Your task to perform on an android device: install app "Skype" Image 0: 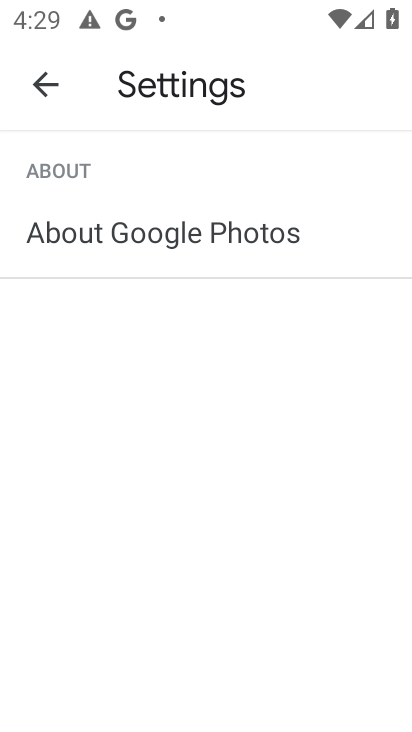
Step 0: click (39, 83)
Your task to perform on an android device: install app "Skype" Image 1: 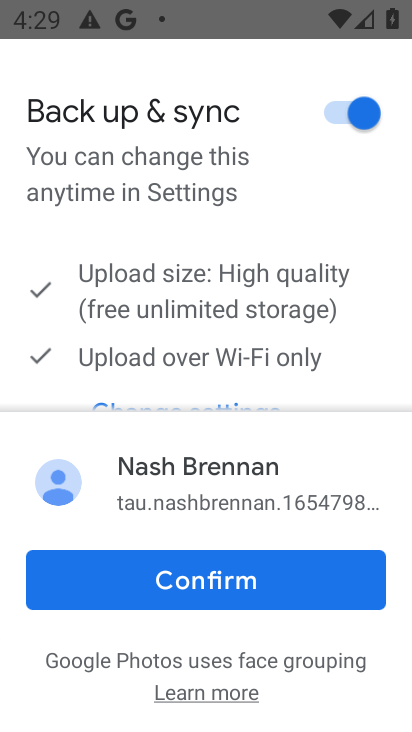
Step 1: click (215, 586)
Your task to perform on an android device: install app "Skype" Image 2: 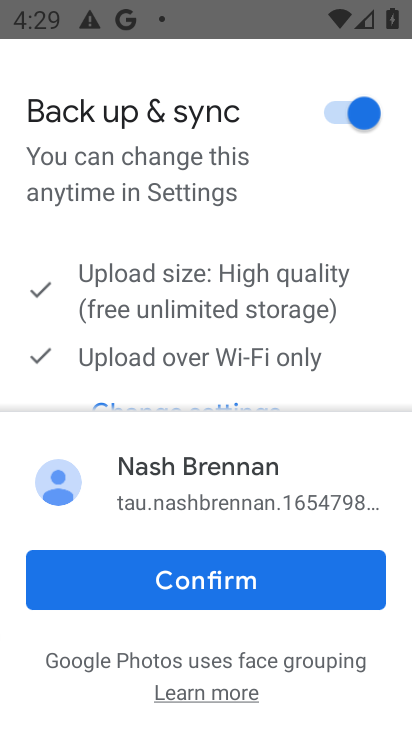
Step 2: click (215, 586)
Your task to perform on an android device: install app "Skype" Image 3: 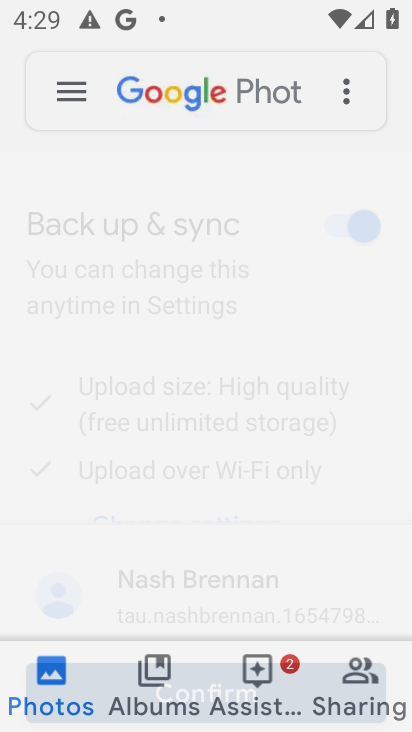
Step 3: click (215, 584)
Your task to perform on an android device: install app "Skype" Image 4: 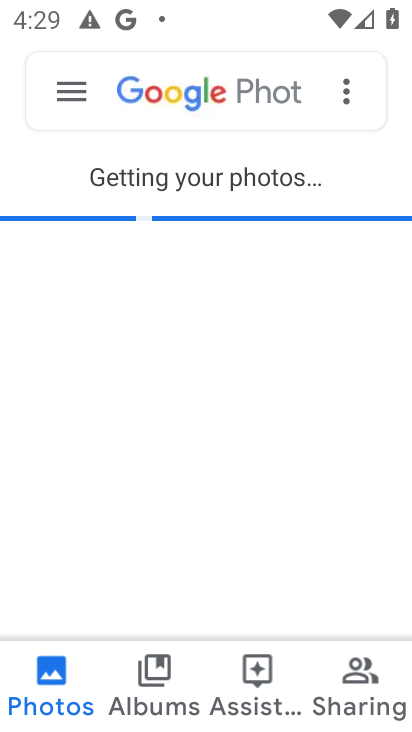
Step 4: click (217, 582)
Your task to perform on an android device: install app "Skype" Image 5: 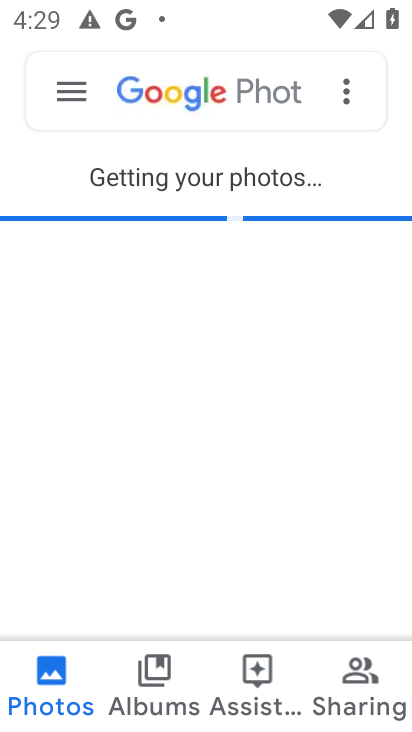
Step 5: click (219, 584)
Your task to perform on an android device: install app "Skype" Image 6: 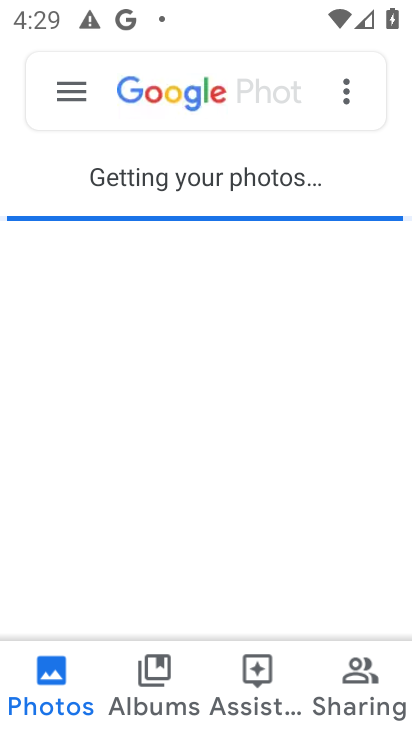
Step 6: press back button
Your task to perform on an android device: install app "Skype" Image 7: 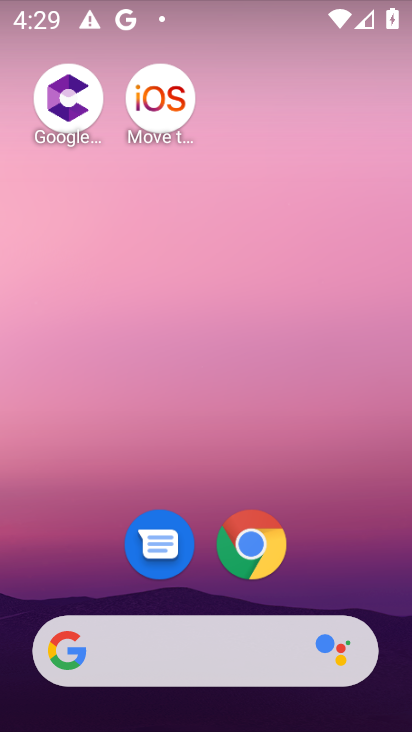
Step 7: drag from (227, 371) to (203, 108)
Your task to perform on an android device: install app "Skype" Image 8: 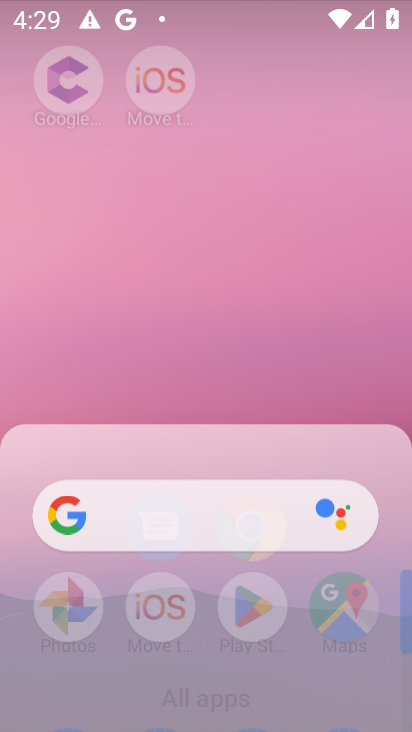
Step 8: drag from (266, 450) to (211, 130)
Your task to perform on an android device: install app "Skype" Image 9: 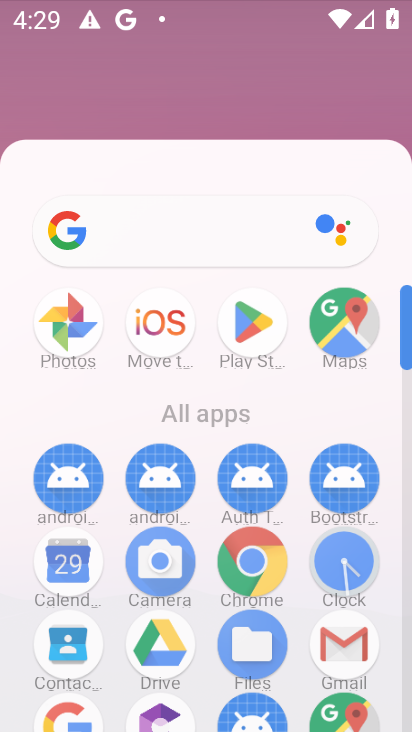
Step 9: drag from (294, 431) to (145, 161)
Your task to perform on an android device: install app "Skype" Image 10: 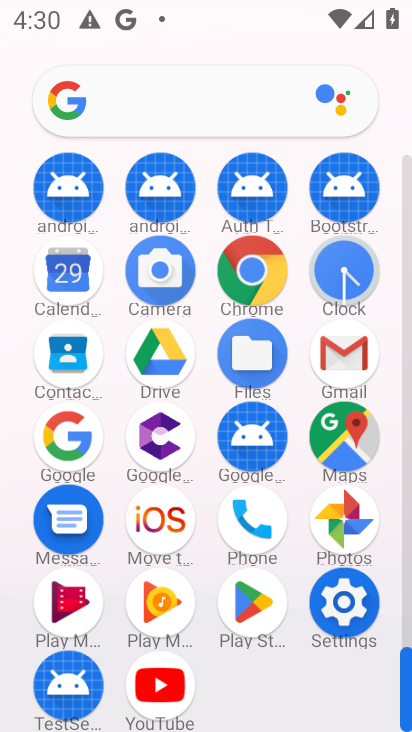
Step 10: click (251, 584)
Your task to perform on an android device: install app "Skype" Image 11: 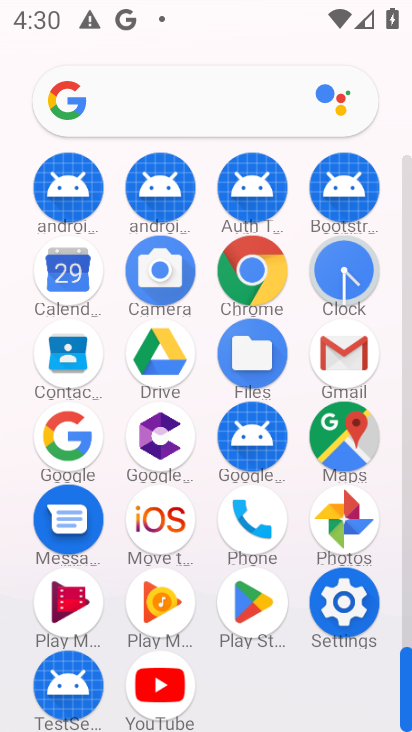
Step 11: click (250, 589)
Your task to perform on an android device: install app "Skype" Image 12: 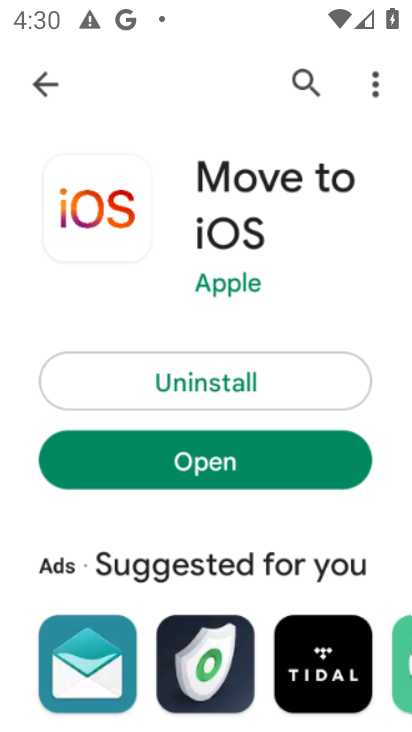
Step 12: click (250, 591)
Your task to perform on an android device: install app "Skype" Image 13: 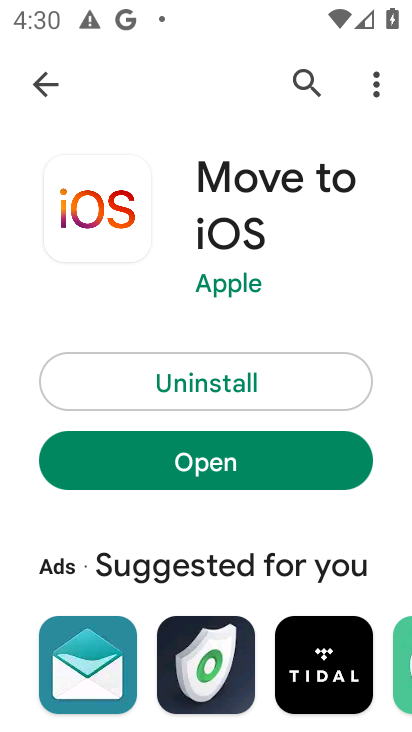
Step 13: click (250, 591)
Your task to perform on an android device: install app "Skype" Image 14: 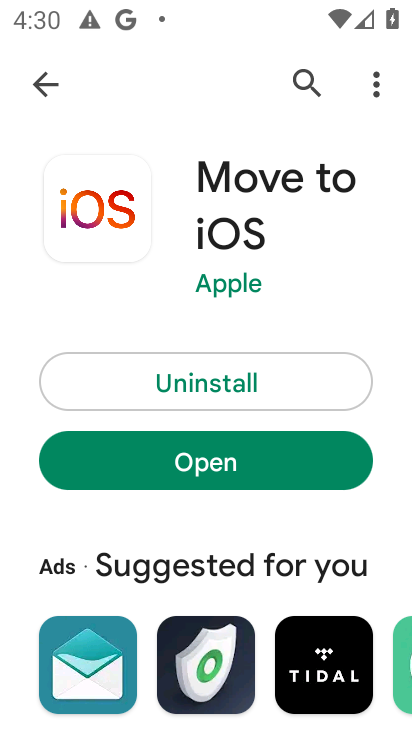
Step 14: click (49, 81)
Your task to perform on an android device: install app "Skype" Image 15: 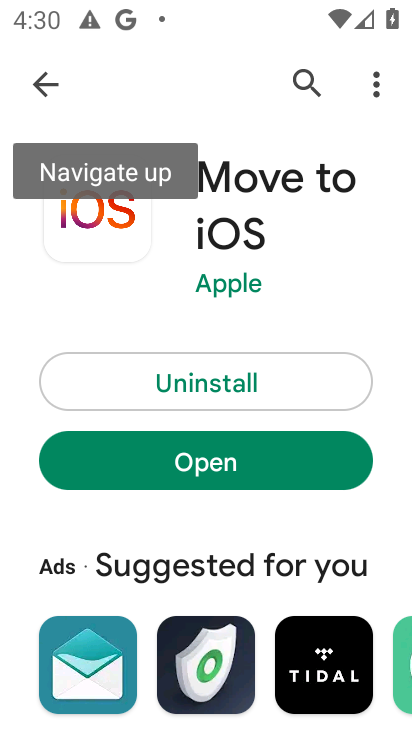
Step 15: click (48, 81)
Your task to perform on an android device: install app "Skype" Image 16: 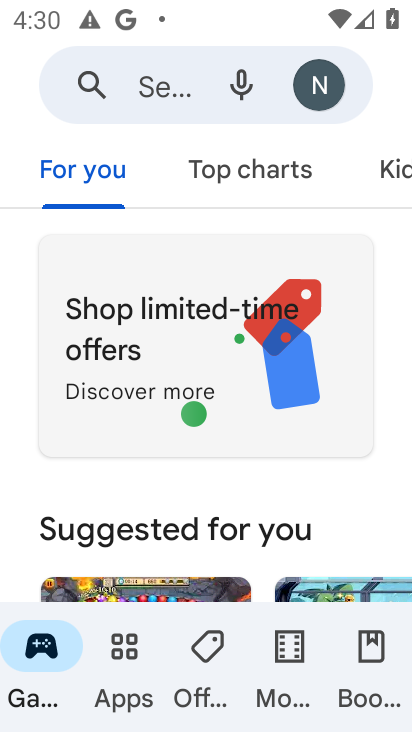
Step 16: click (126, 99)
Your task to perform on an android device: install app "Skype" Image 17: 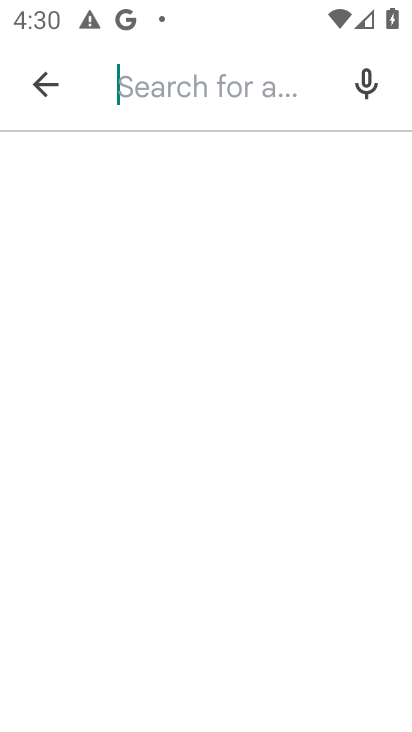
Step 17: click (141, 92)
Your task to perform on an android device: install app "Skype" Image 18: 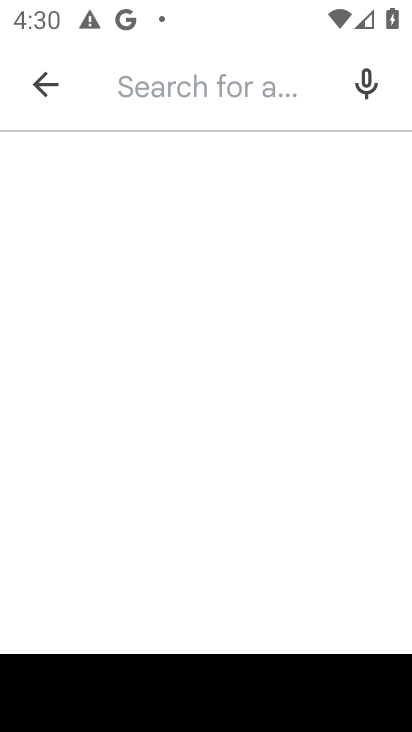
Step 18: click (141, 92)
Your task to perform on an android device: install app "Skype" Image 19: 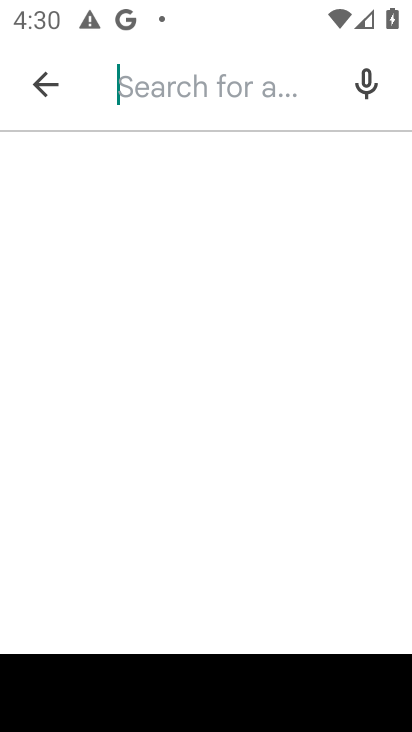
Step 19: type "Skype"
Your task to perform on an android device: install app "Skype" Image 20: 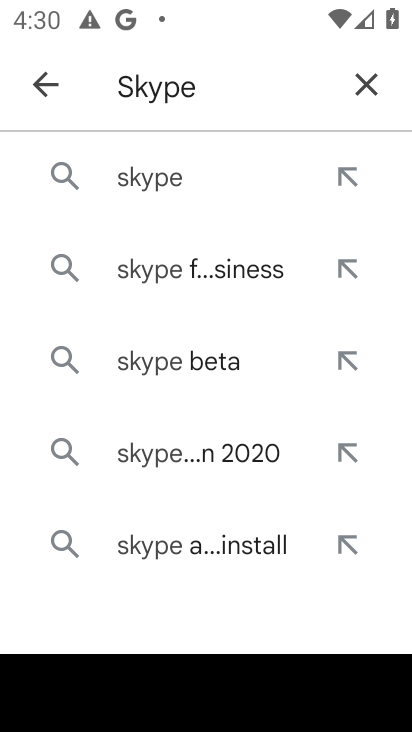
Step 20: click (130, 159)
Your task to perform on an android device: install app "Skype" Image 21: 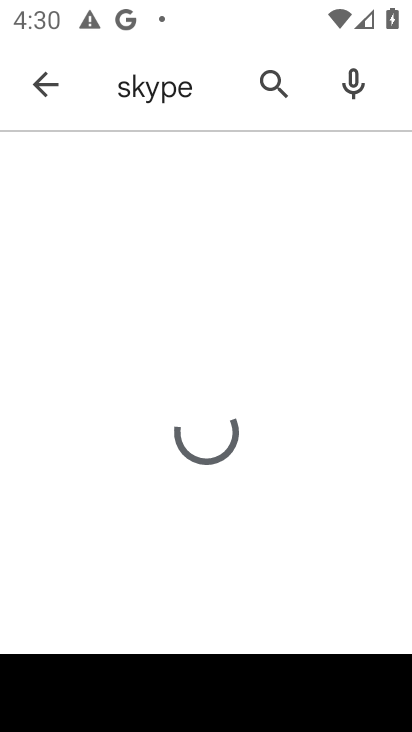
Step 21: click (160, 174)
Your task to perform on an android device: install app "Skype" Image 22: 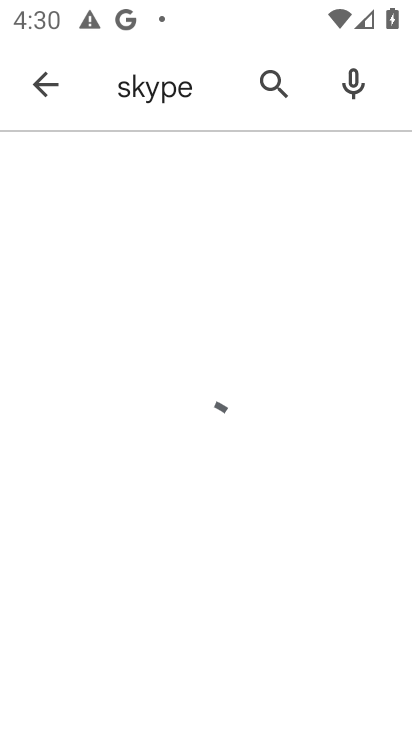
Step 22: click (160, 174)
Your task to perform on an android device: install app "Skype" Image 23: 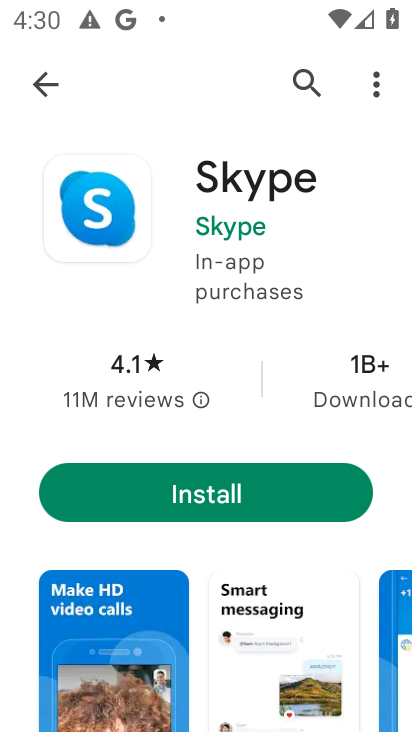
Step 23: click (202, 501)
Your task to perform on an android device: install app "Skype" Image 24: 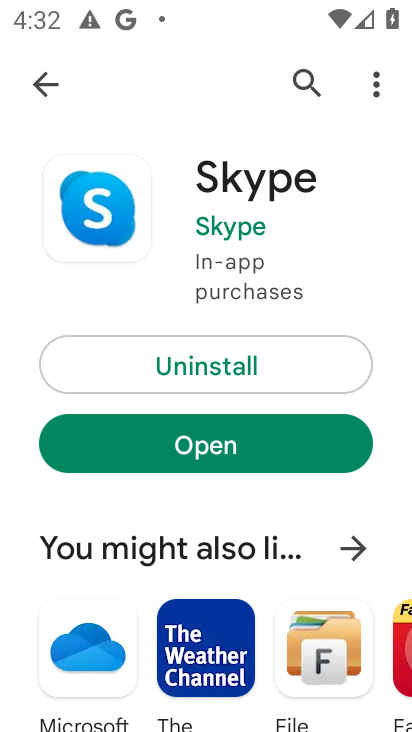
Step 24: click (231, 439)
Your task to perform on an android device: install app "Skype" Image 25: 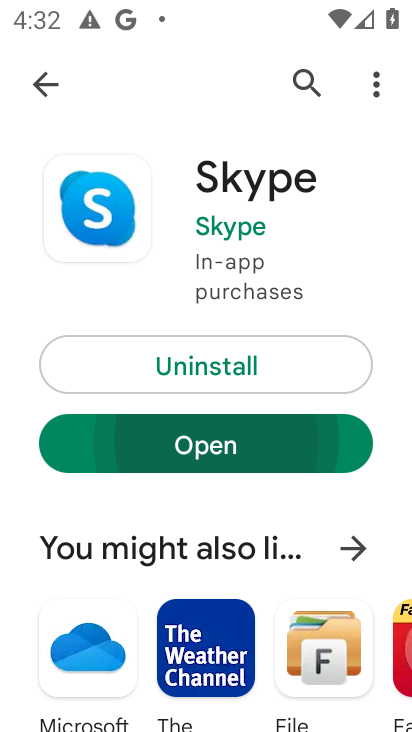
Step 25: click (232, 440)
Your task to perform on an android device: install app "Skype" Image 26: 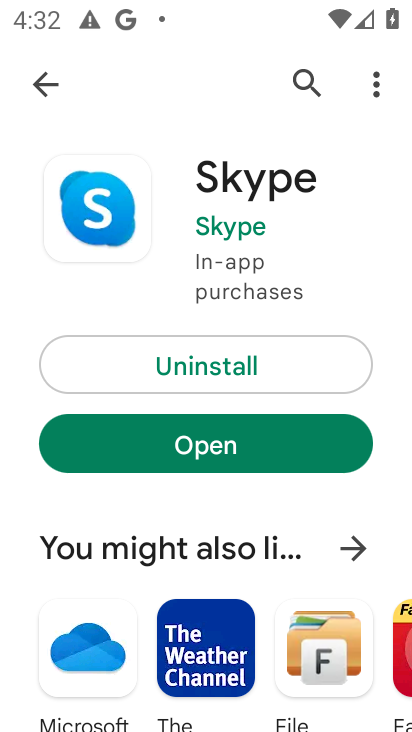
Step 26: click (232, 440)
Your task to perform on an android device: install app "Skype" Image 27: 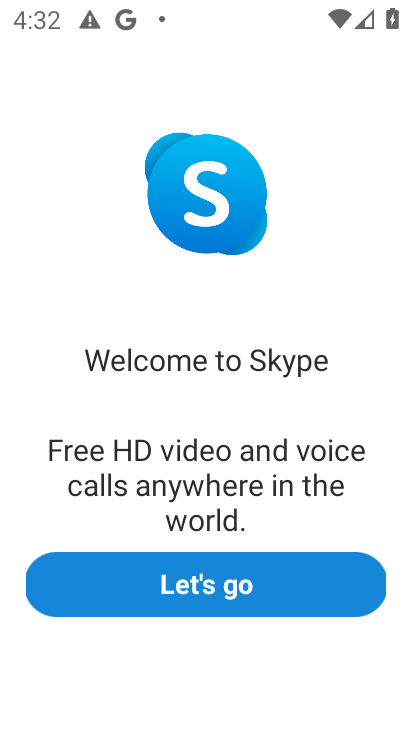
Step 27: press back button
Your task to perform on an android device: install app "Skype" Image 28: 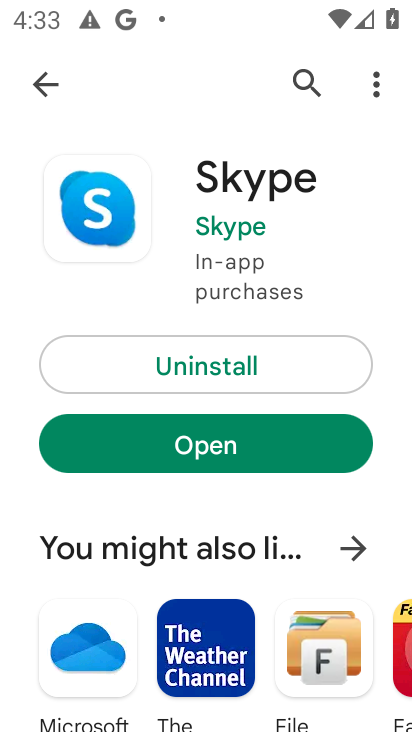
Step 28: click (217, 443)
Your task to perform on an android device: install app "Skype" Image 29: 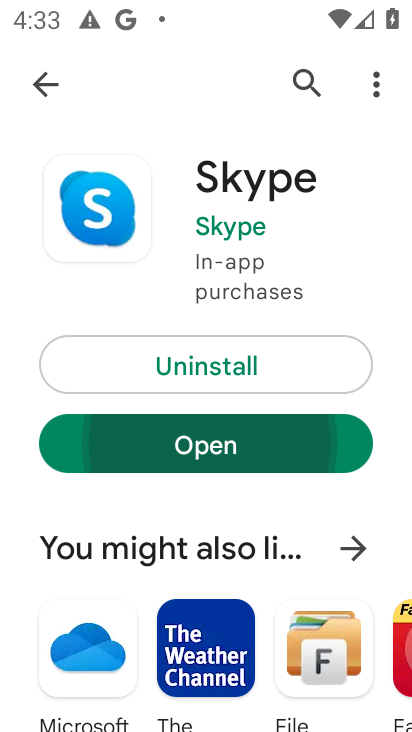
Step 29: click (214, 446)
Your task to perform on an android device: install app "Skype" Image 30: 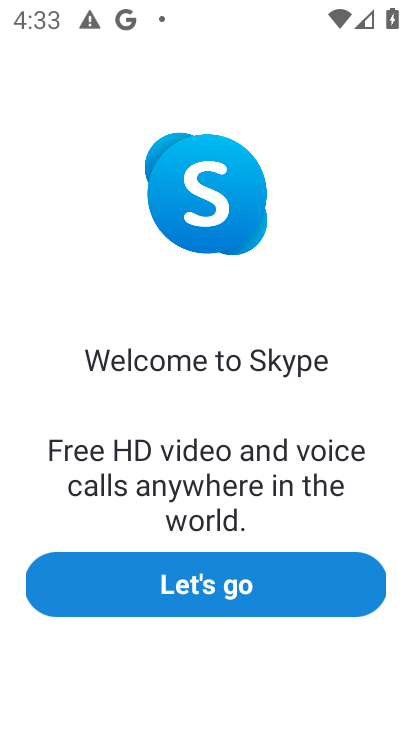
Step 30: task complete